Your task to perform on an android device: turn off priority inbox in the gmail app Image 0: 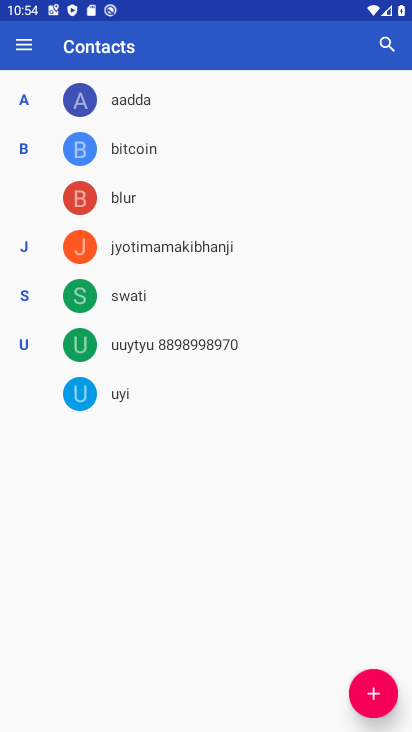
Step 0: press home button
Your task to perform on an android device: turn off priority inbox in the gmail app Image 1: 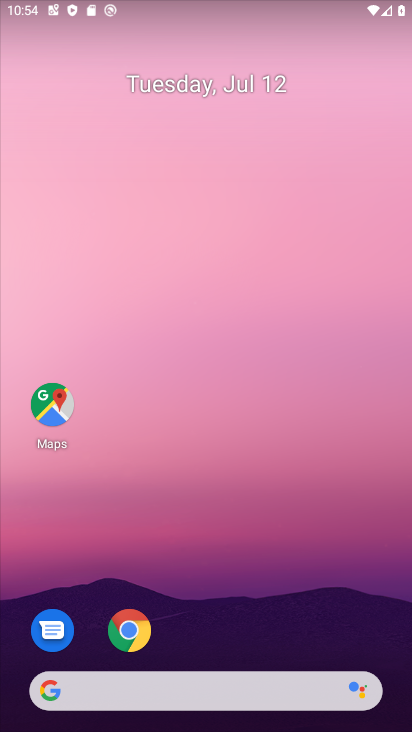
Step 1: drag from (263, 590) to (200, 62)
Your task to perform on an android device: turn off priority inbox in the gmail app Image 2: 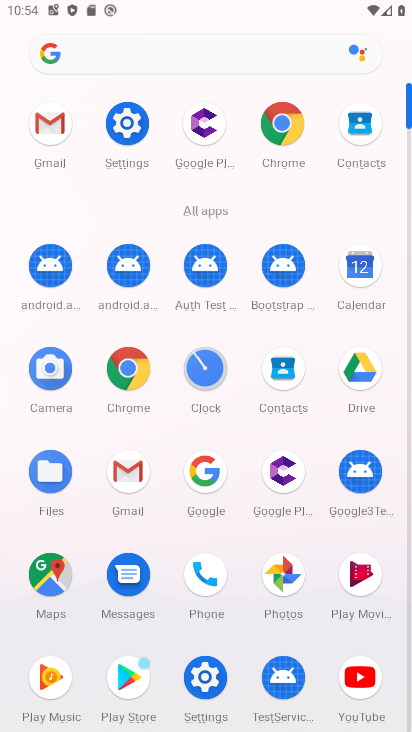
Step 2: click (55, 125)
Your task to perform on an android device: turn off priority inbox in the gmail app Image 3: 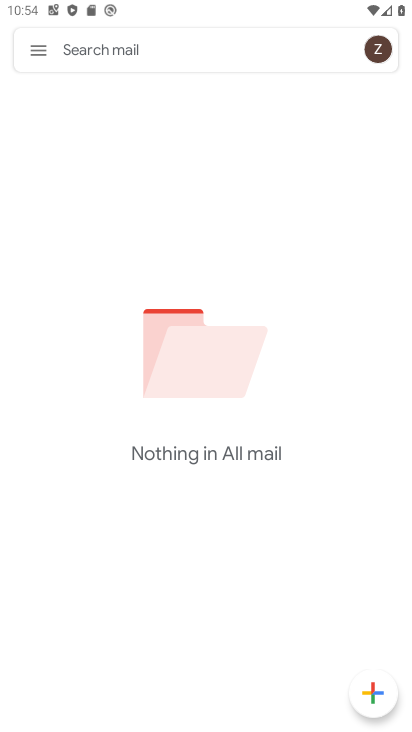
Step 3: click (33, 47)
Your task to perform on an android device: turn off priority inbox in the gmail app Image 4: 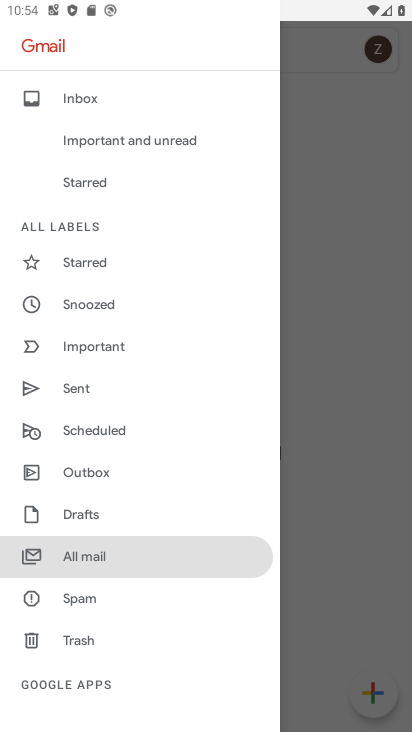
Step 4: drag from (149, 637) to (178, 76)
Your task to perform on an android device: turn off priority inbox in the gmail app Image 5: 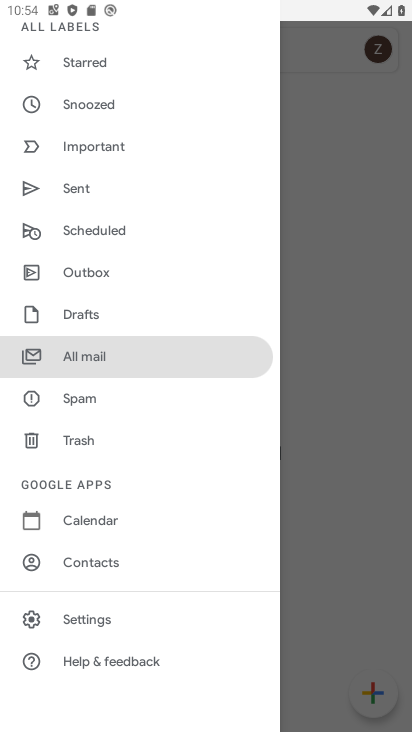
Step 5: click (89, 621)
Your task to perform on an android device: turn off priority inbox in the gmail app Image 6: 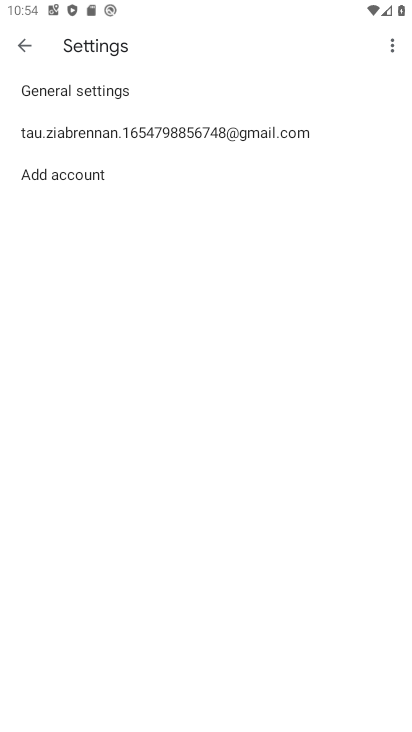
Step 6: click (232, 124)
Your task to perform on an android device: turn off priority inbox in the gmail app Image 7: 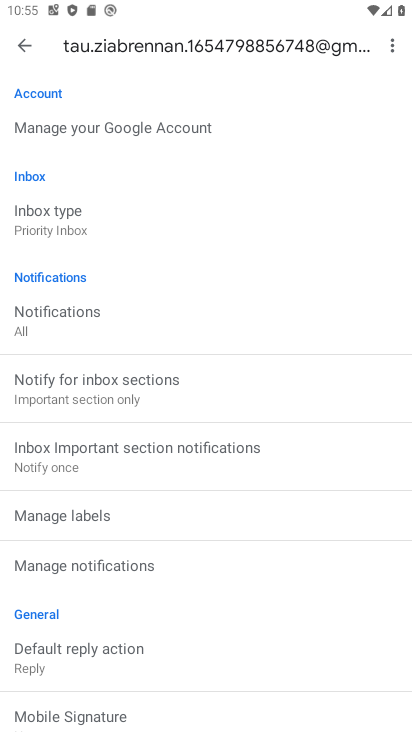
Step 7: task complete